Your task to perform on an android device: install app "YouTube Kids" Image 0: 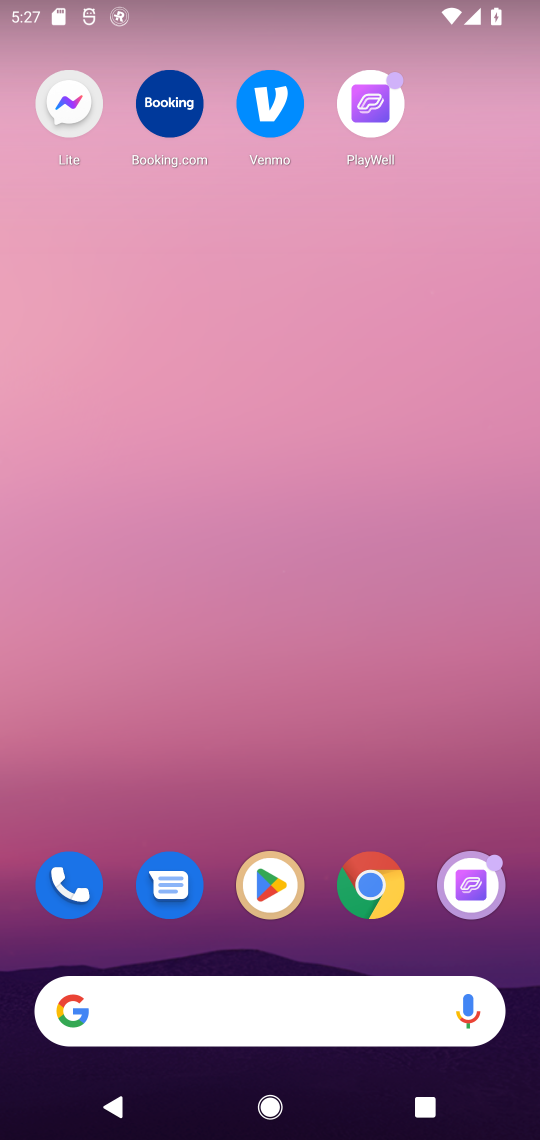
Step 0: click (278, 881)
Your task to perform on an android device: install app "YouTube Kids" Image 1: 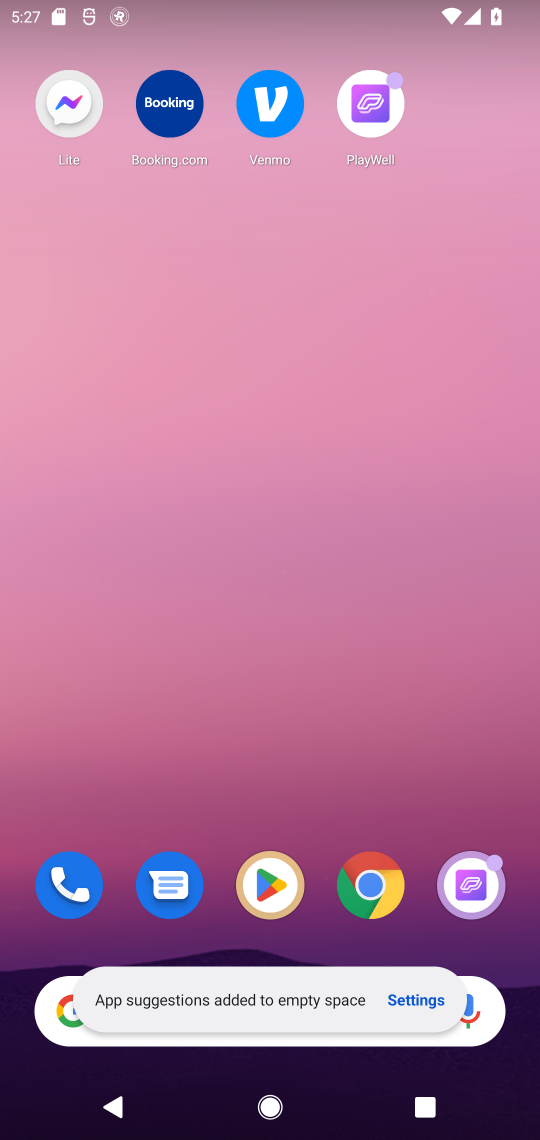
Step 1: click (278, 881)
Your task to perform on an android device: install app "YouTube Kids" Image 2: 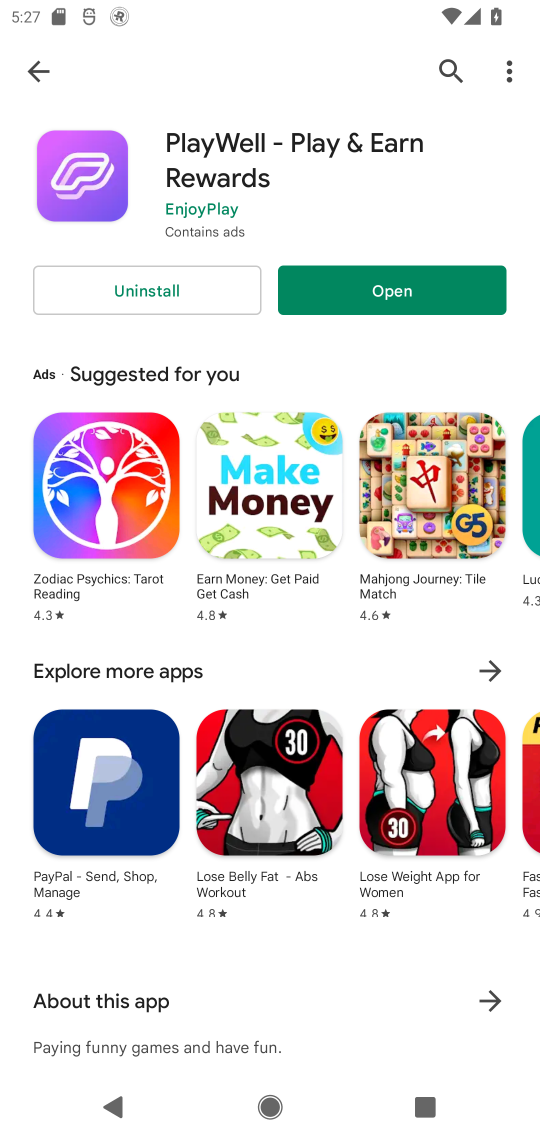
Step 2: click (458, 57)
Your task to perform on an android device: install app "YouTube Kids" Image 3: 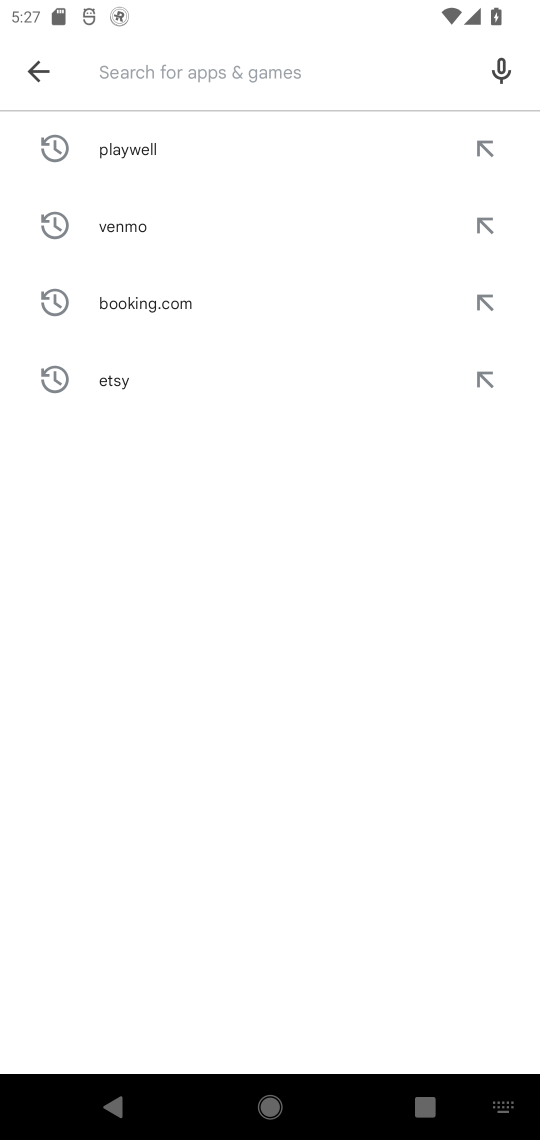
Step 3: click (126, 83)
Your task to perform on an android device: install app "YouTube Kids" Image 4: 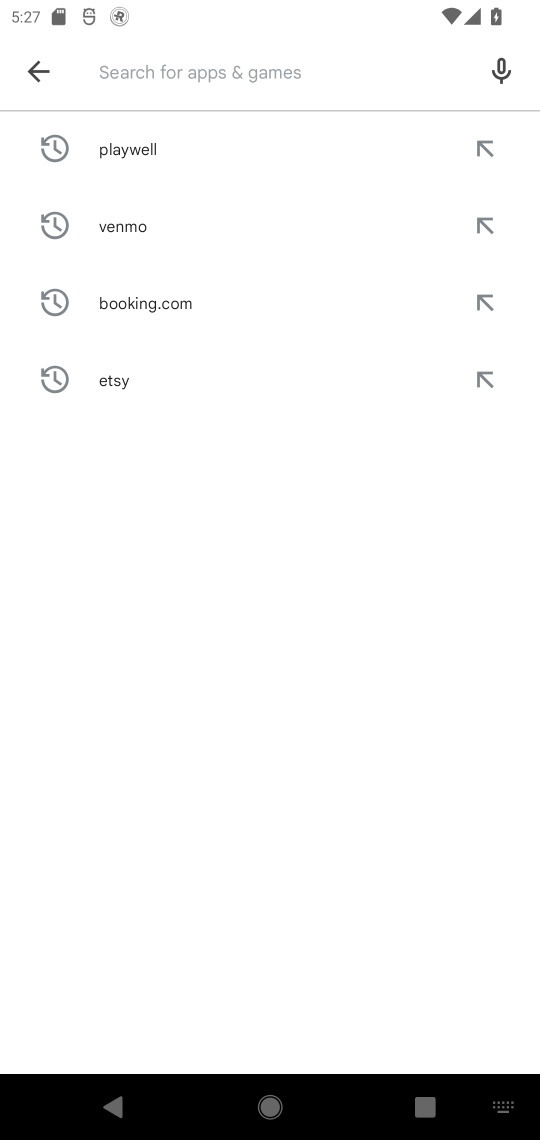
Step 4: type "YouTube Kids"
Your task to perform on an android device: install app "YouTube Kids" Image 5: 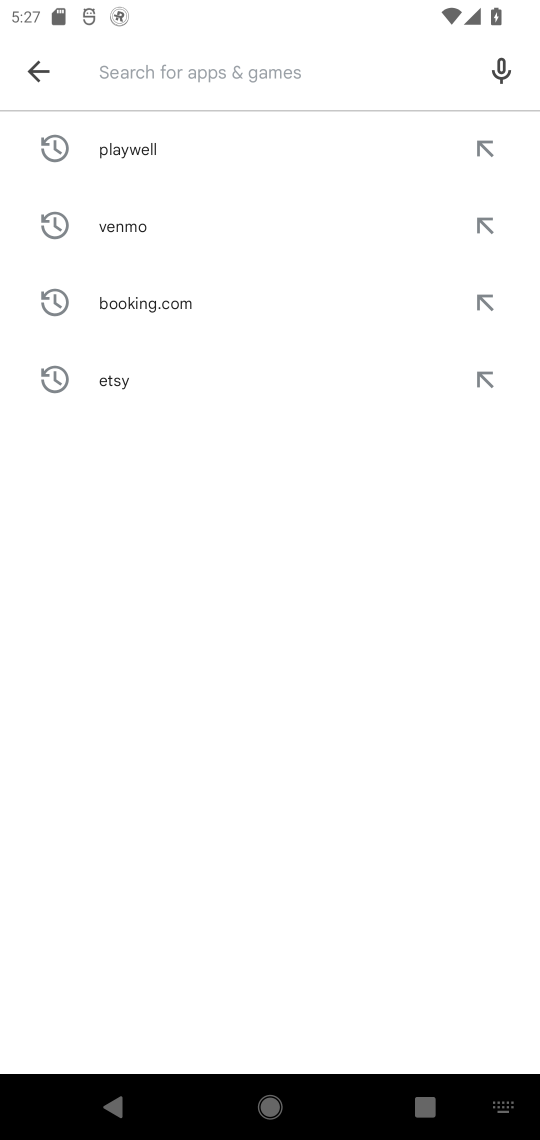
Step 5: click (265, 647)
Your task to perform on an android device: install app "YouTube Kids" Image 6: 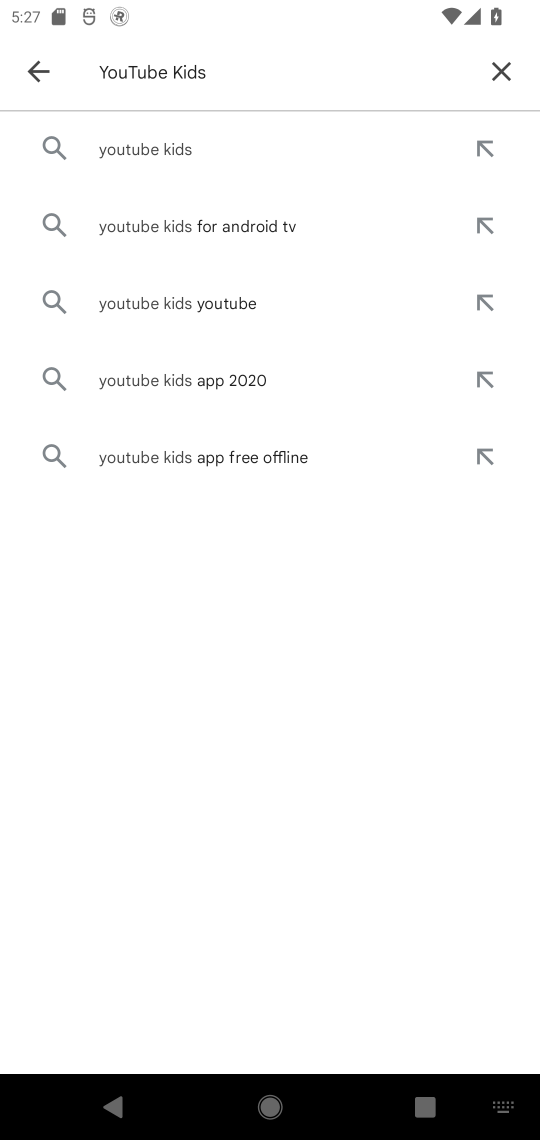
Step 6: click (236, 153)
Your task to perform on an android device: install app "YouTube Kids" Image 7: 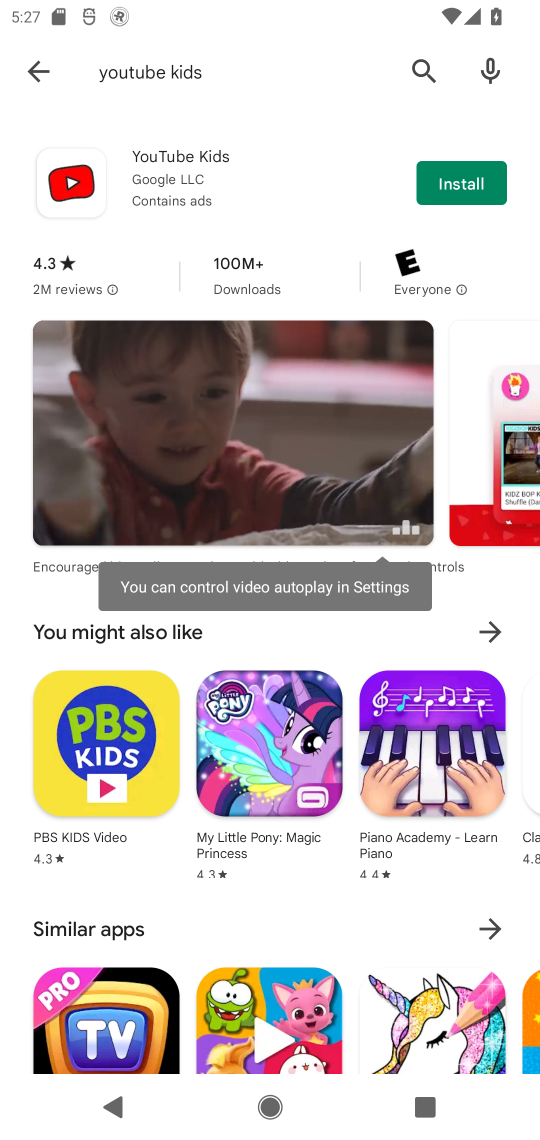
Step 7: click (468, 175)
Your task to perform on an android device: install app "YouTube Kids" Image 8: 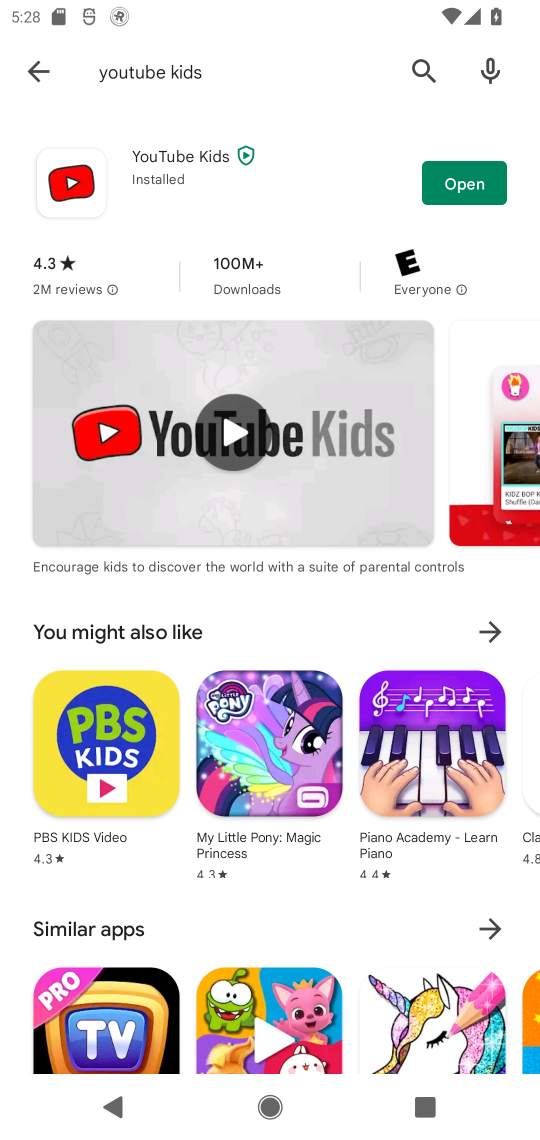
Step 8: click (471, 181)
Your task to perform on an android device: install app "YouTube Kids" Image 9: 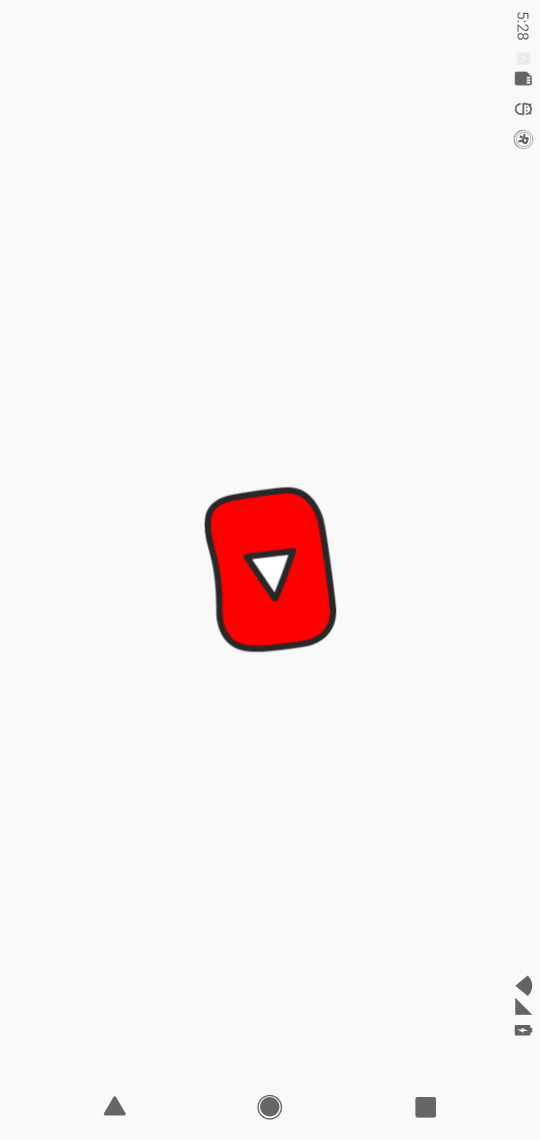
Step 9: task complete